Your task to perform on an android device: Open Android settings Image 0: 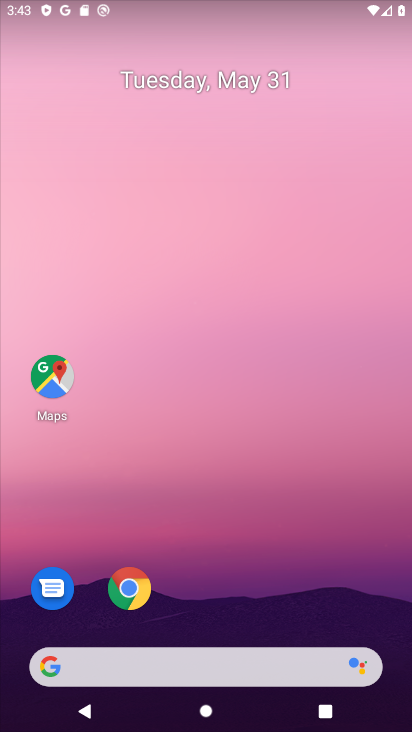
Step 0: drag from (222, 608) to (295, 140)
Your task to perform on an android device: Open Android settings Image 1: 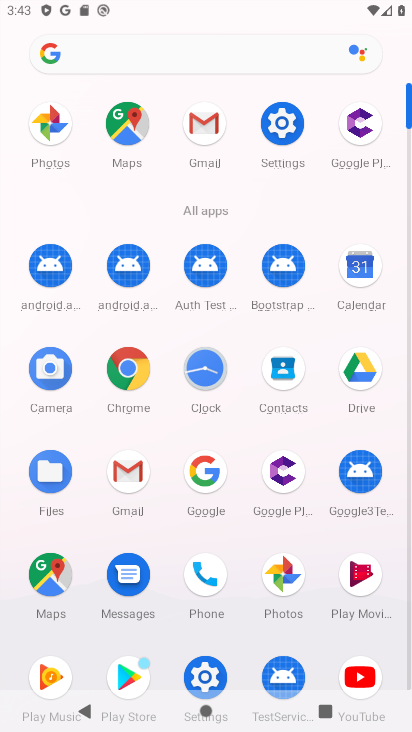
Step 1: click (283, 117)
Your task to perform on an android device: Open Android settings Image 2: 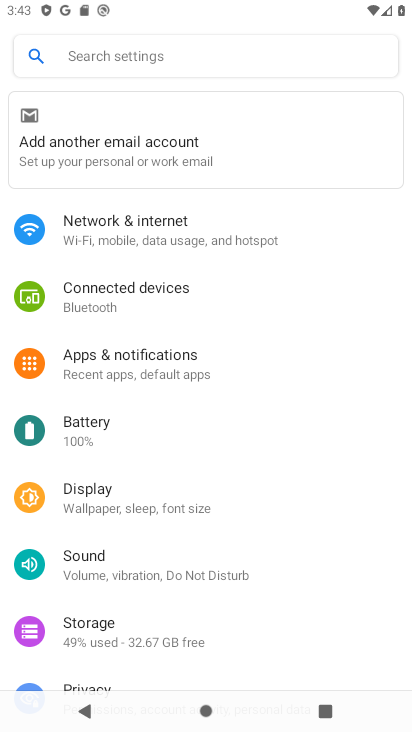
Step 2: task complete